Your task to perform on an android device: Open Google Maps Image 0: 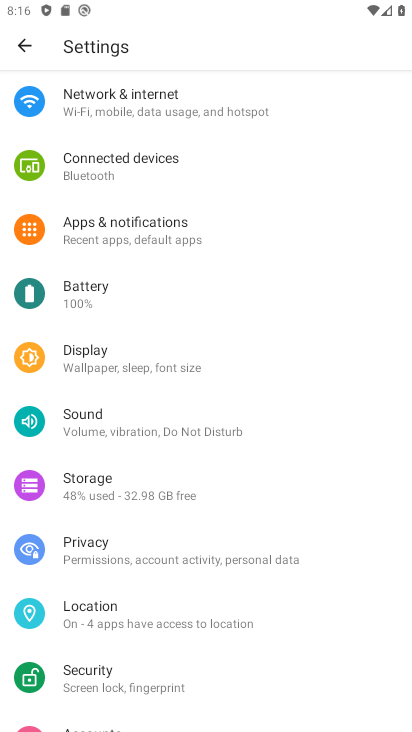
Step 0: press home button
Your task to perform on an android device: Open Google Maps Image 1: 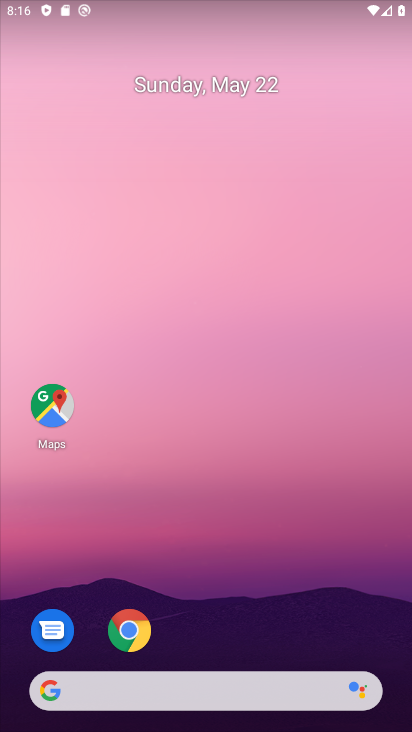
Step 1: click (44, 403)
Your task to perform on an android device: Open Google Maps Image 2: 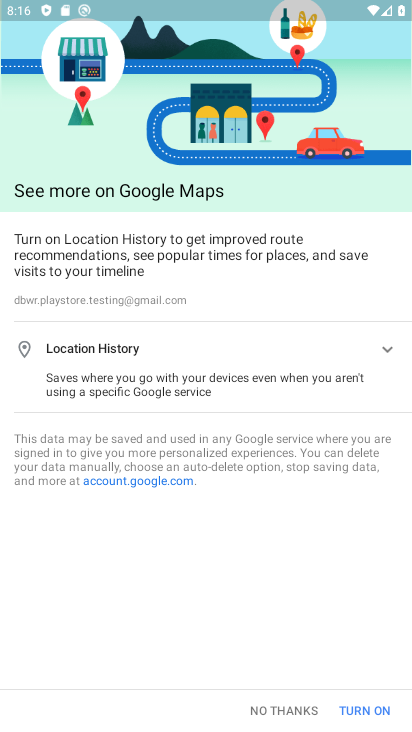
Step 2: click (267, 708)
Your task to perform on an android device: Open Google Maps Image 3: 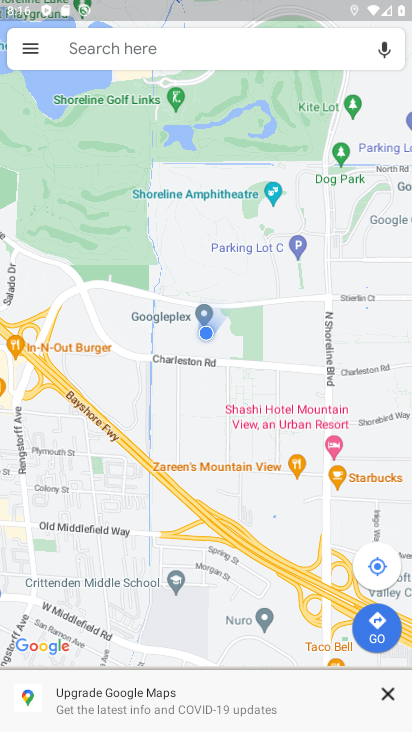
Step 3: task complete